Your task to perform on an android device: Go to Wikipedia Image 0: 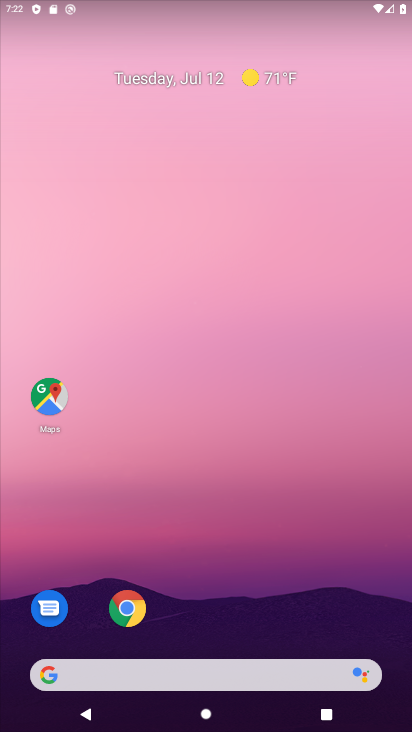
Step 0: click (124, 606)
Your task to perform on an android device: Go to Wikipedia Image 1: 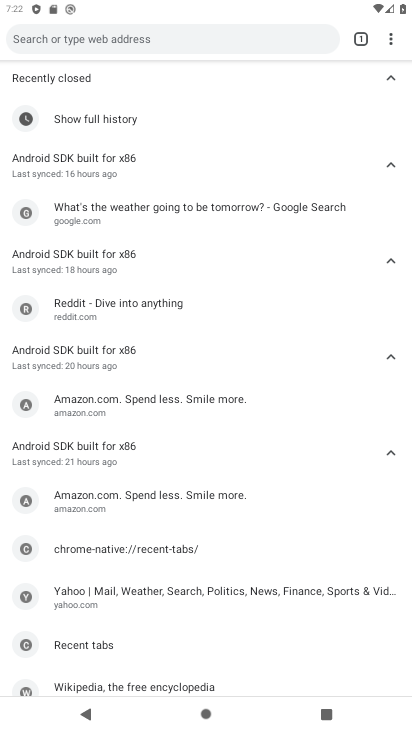
Step 1: click (392, 35)
Your task to perform on an android device: Go to Wikipedia Image 2: 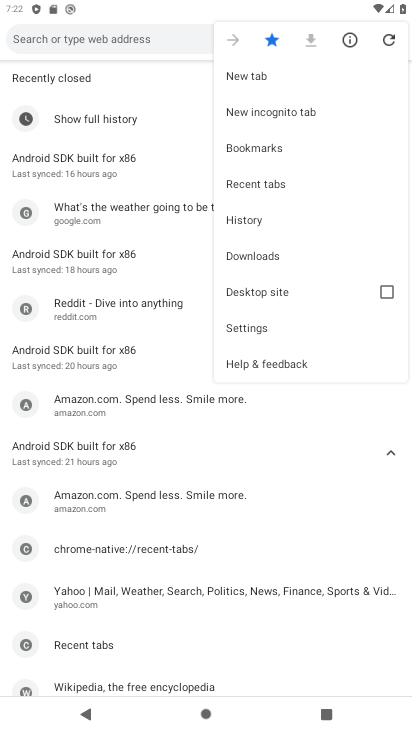
Step 2: click (244, 77)
Your task to perform on an android device: Go to Wikipedia Image 3: 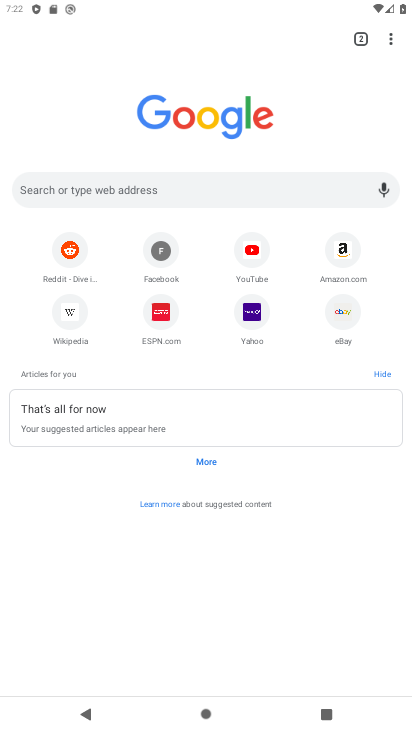
Step 3: click (71, 312)
Your task to perform on an android device: Go to Wikipedia Image 4: 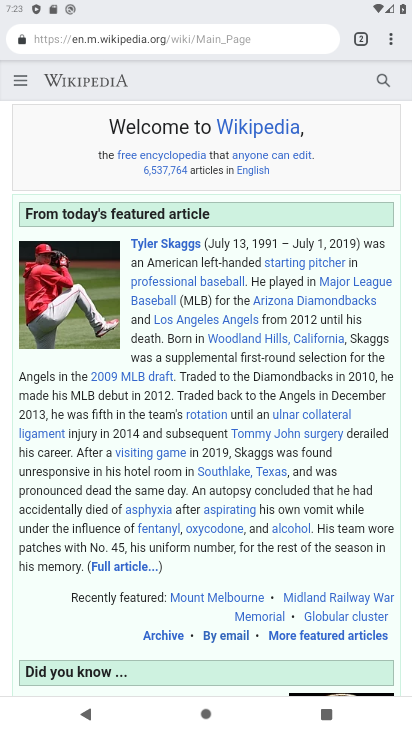
Step 4: task complete